Your task to perform on an android device: Open wifi settings Image 0: 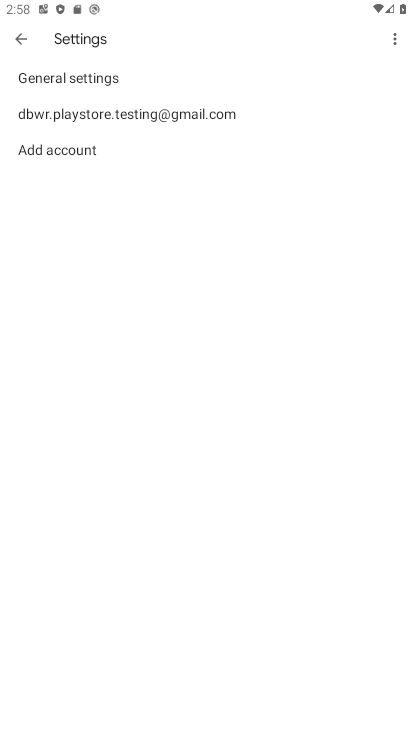
Step 0: press home button
Your task to perform on an android device: Open wifi settings Image 1: 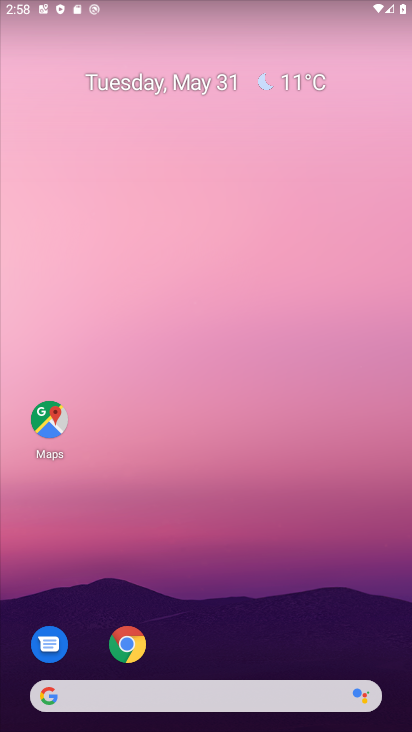
Step 1: drag from (255, 619) to (262, 112)
Your task to perform on an android device: Open wifi settings Image 2: 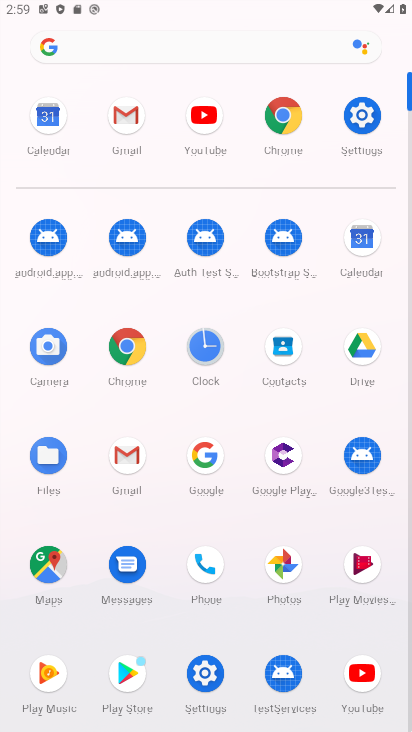
Step 2: click (367, 110)
Your task to perform on an android device: Open wifi settings Image 3: 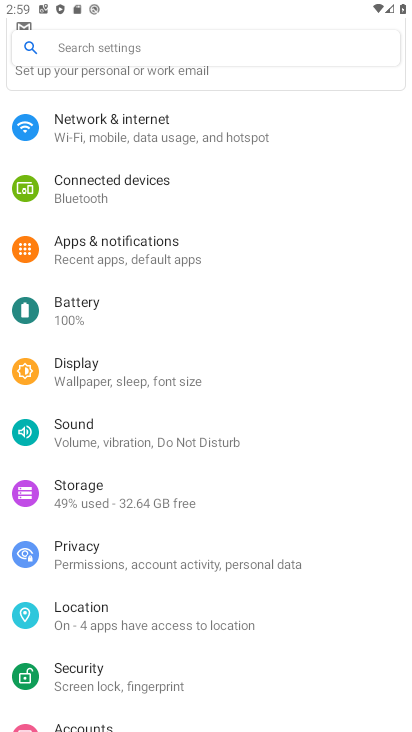
Step 3: drag from (232, 139) to (183, 508)
Your task to perform on an android device: Open wifi settings Image 4: 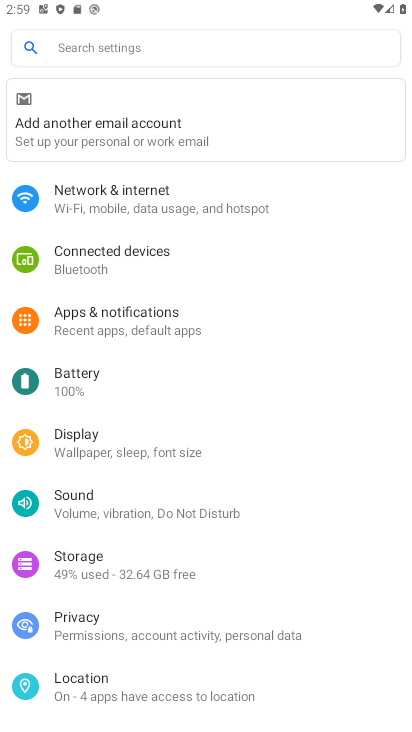
Step 4: click (170, 210)
Your task to perform on an android device: Open wifi settings Image 5: 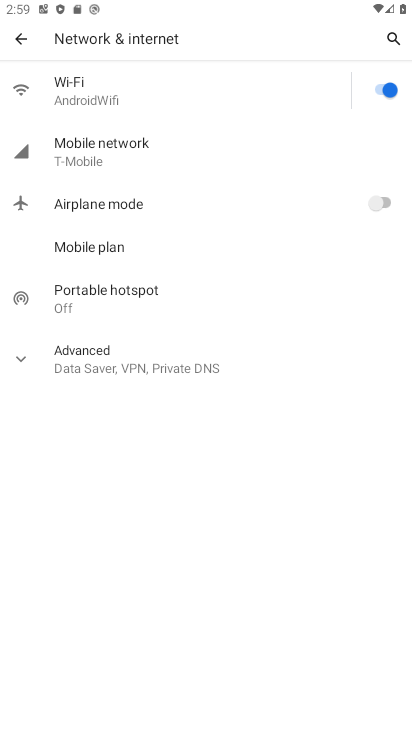
Step 5: task complete